Your task to perform on an android device: check the backup settings in the google photos Image 0: 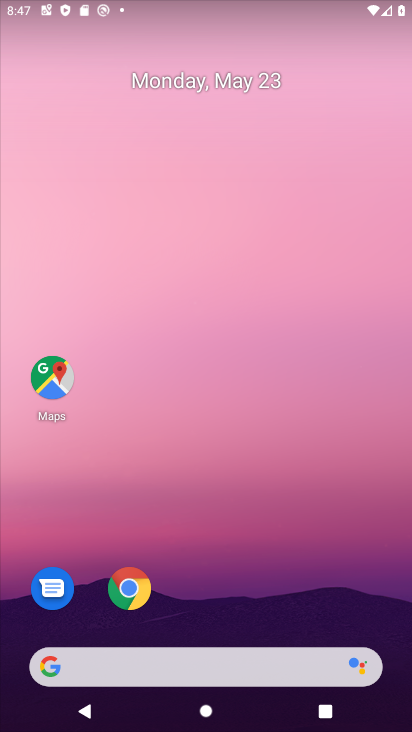
Step 0: drag from (395, 713) to (357, 9)
Your task to perform on an android device: check the backup settings in the google photos Image 1: 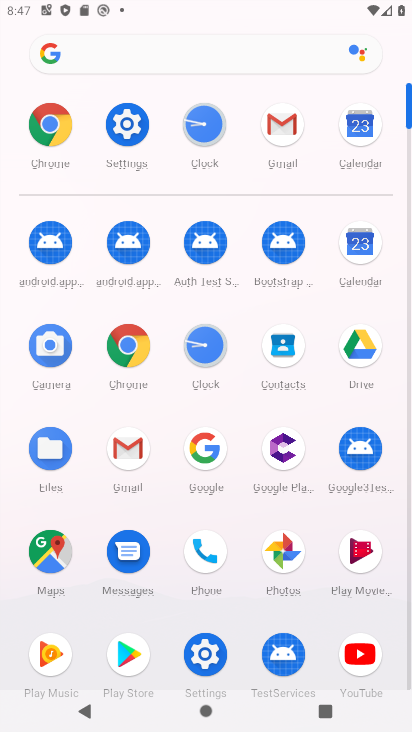
Step 1: click (281, 550)
Your task to perform on an android device: check the backup settings in the google photos Image 2: 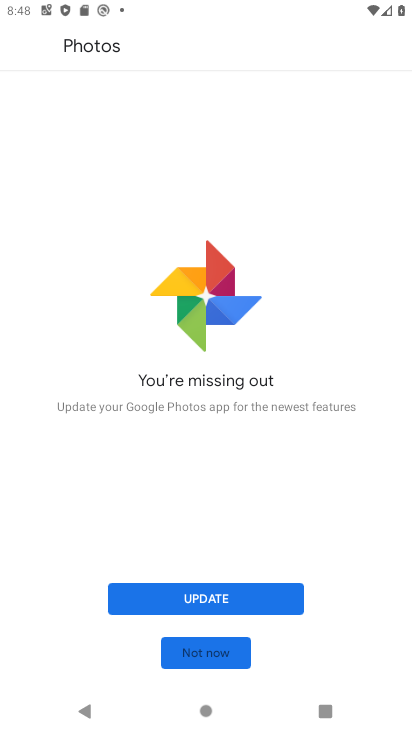
Step 2: click (253, 592)
Your task to perform on an android device: check the backup settings in the google photos Image 3: 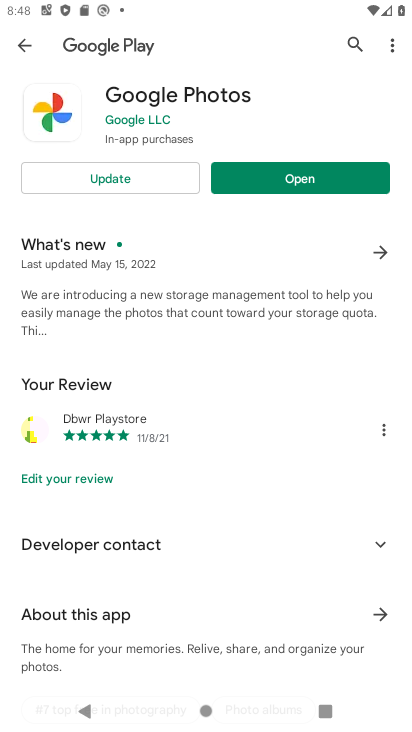
Step 3: click (140, 182)
Your task to perform on an android device: check the backup settings in the google photos Image 4: 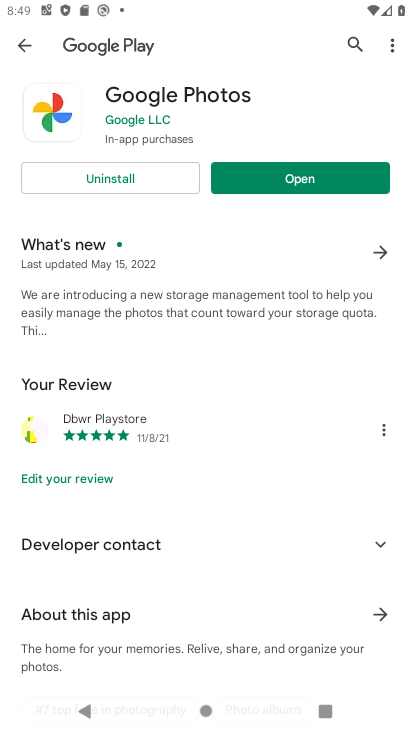
Step 4: click (345, 176)
Your task to perform on an android device: check the backup settings in the google photos Image 5: 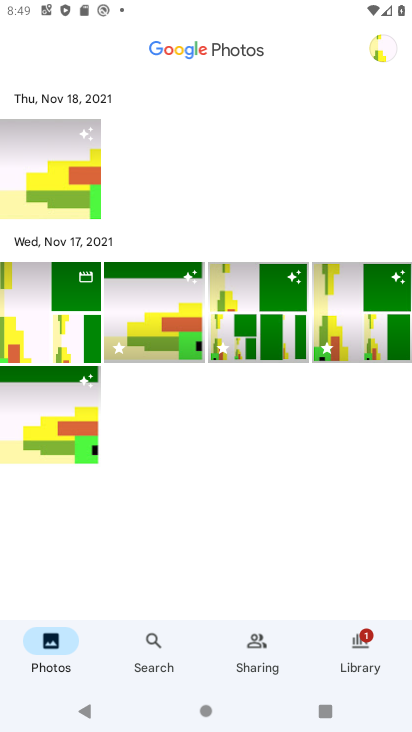
Step 5: task complete